Your task to perform on an android device: Open notification settings Image 0: 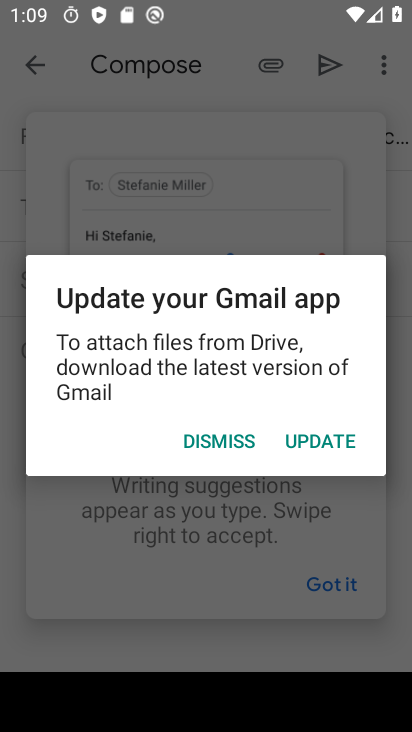
Step 0: press home button
Your task to perform on an android device: Open notification settings Image 1: 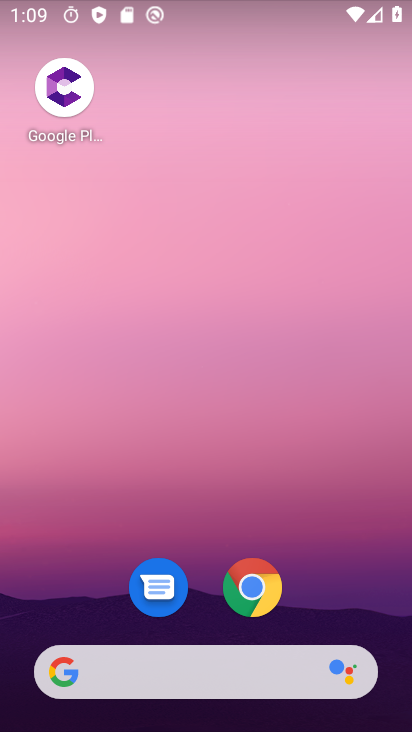
Step 1: drag from (309, 514) to (308, 175)
Your task to perform on an android device: Open notification settings Image 2: 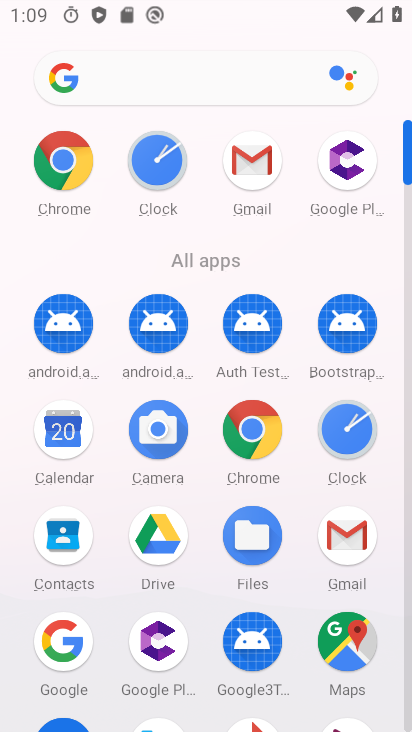
Step 2: drag from (293, 584) to (319, 273)
Your task to perform on an android device: Open notification settings Image 3: 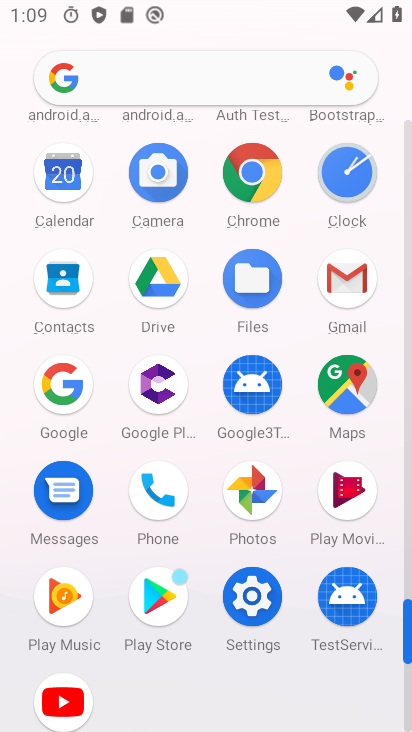
Step 3: click (253, 606)
Your task to perform on an android device: Open notification settings Image 4: 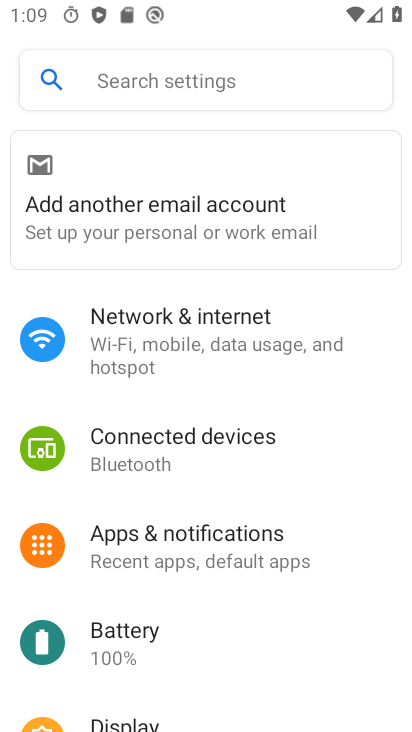
Step 4: click (195, 538)
Your task to perform on an android device: Open notification settings Image 5: 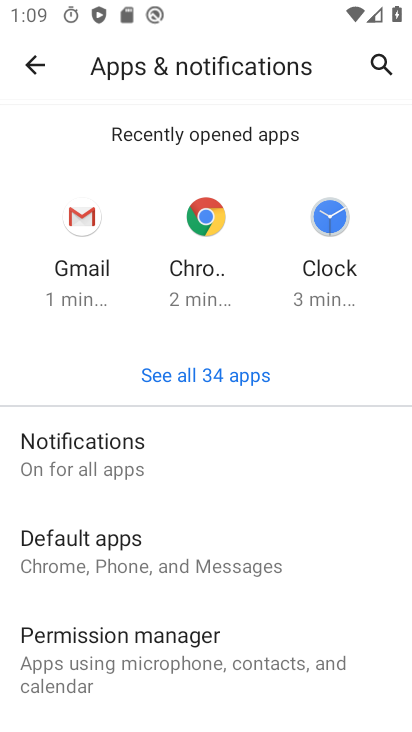
Step 5: click (108, 467)
Your task to perform on an android device: Open notification settings Image 6: 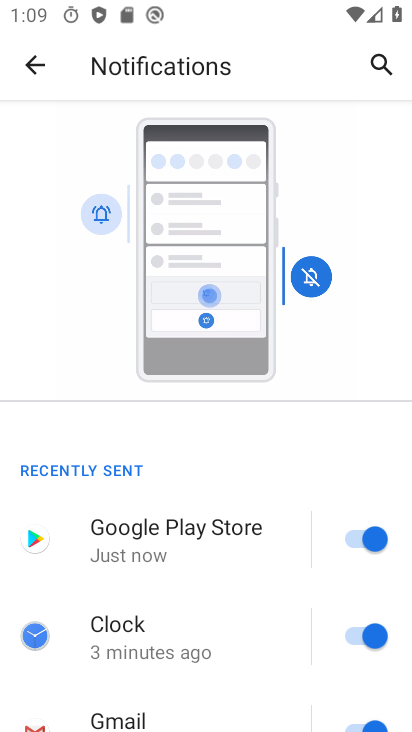
Step 6: drag from (212, 561) to (237, 31)
Your task to perform on an android device: Open notification settings Image 7: 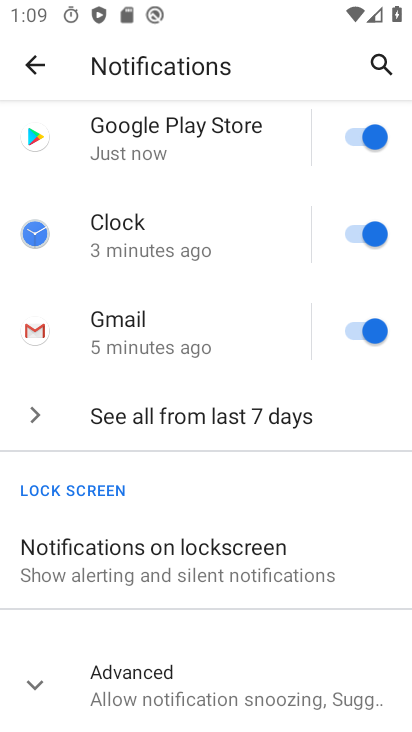
Step 7: click (141, 689)
Your task to perform on an android device: Open notification settings Image 8: 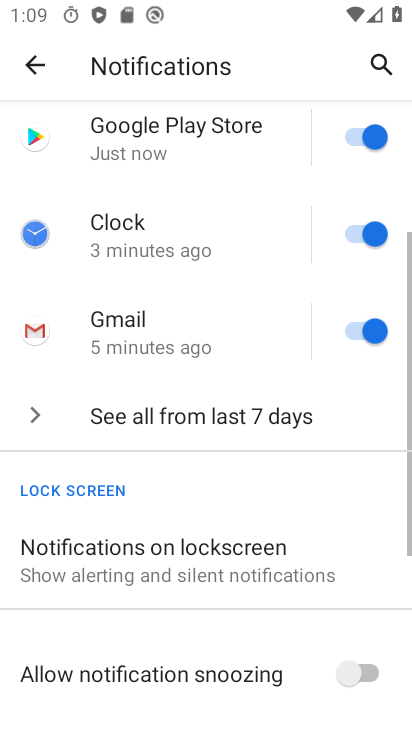
Step 8: drag from (246, 644) to (282, 201)
Your task to perform on an android device: Open notification settings Image 9: 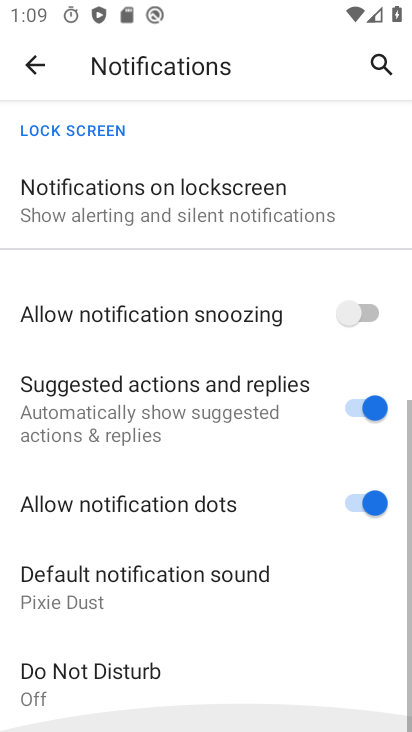
Step 9: click (282, 194)
Your task to perform on an android device: Open notification settings Image 10: 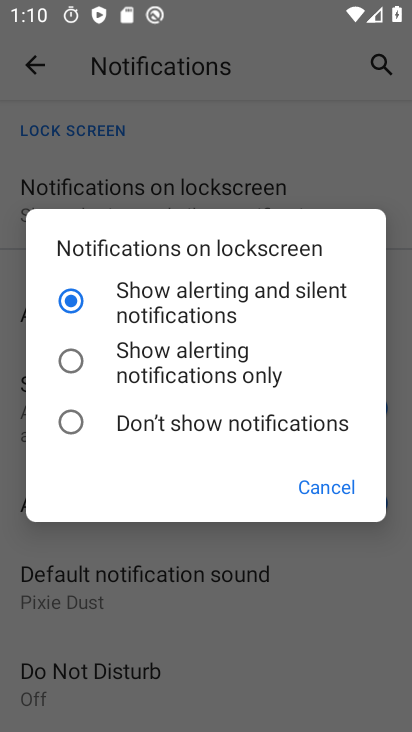
Step 10: click (327, 494)
Your task to perform on an android device: Open notification settings Image 11: 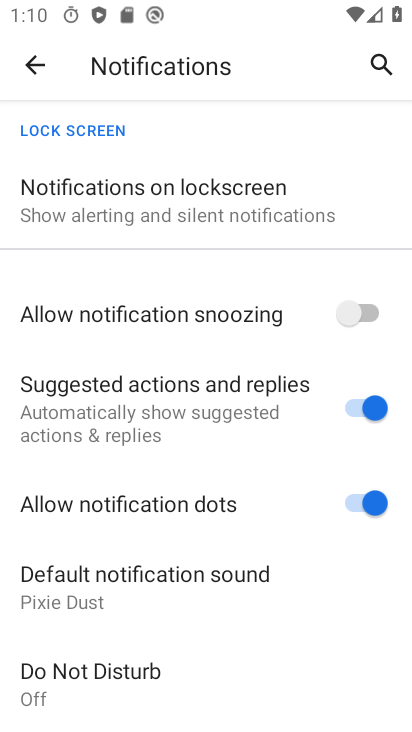
Step 11: task complete